Your task to perform on an android device: change the upload size in google photos Image 0: 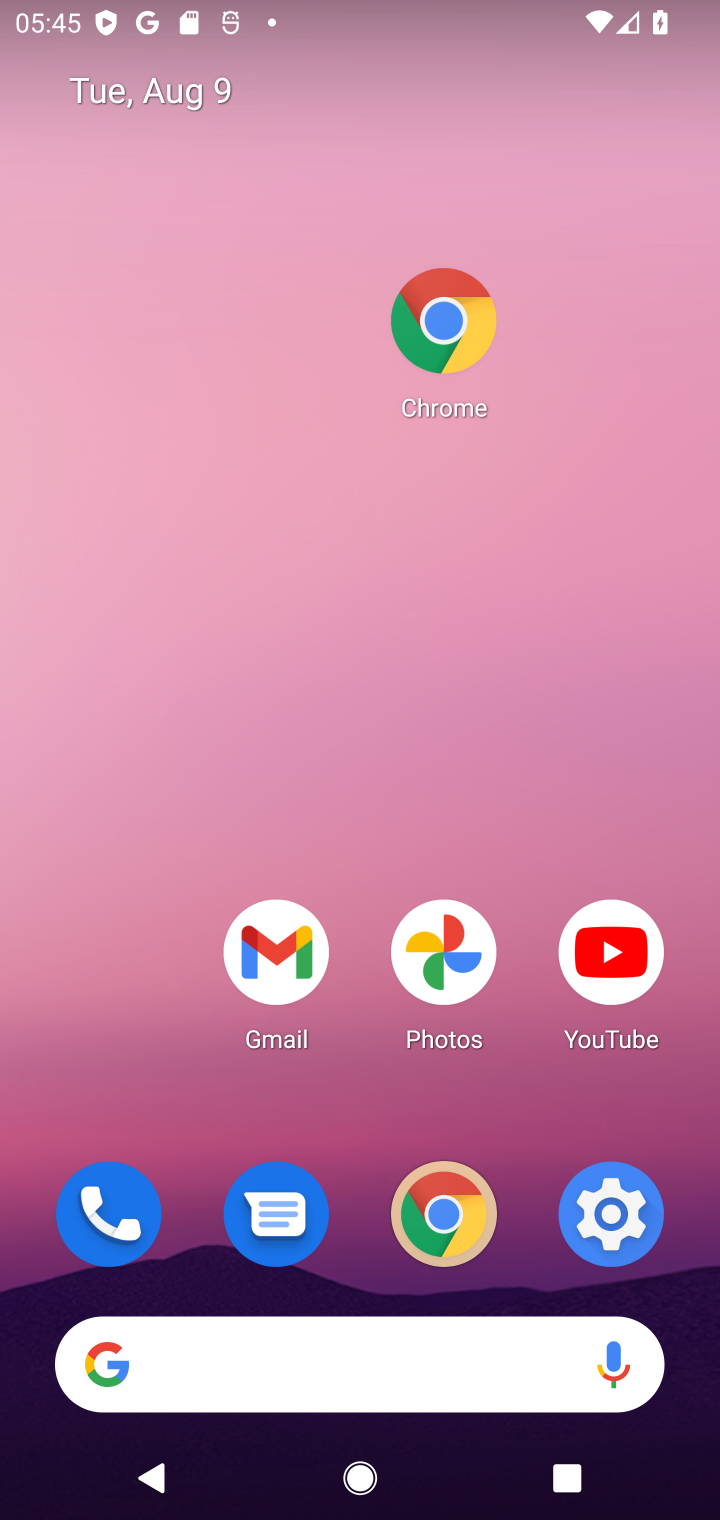
Step 0: drag from (458, 1435) to (517, 569)
Your task to perform on an android device: change the upload size in google photos Image 1: 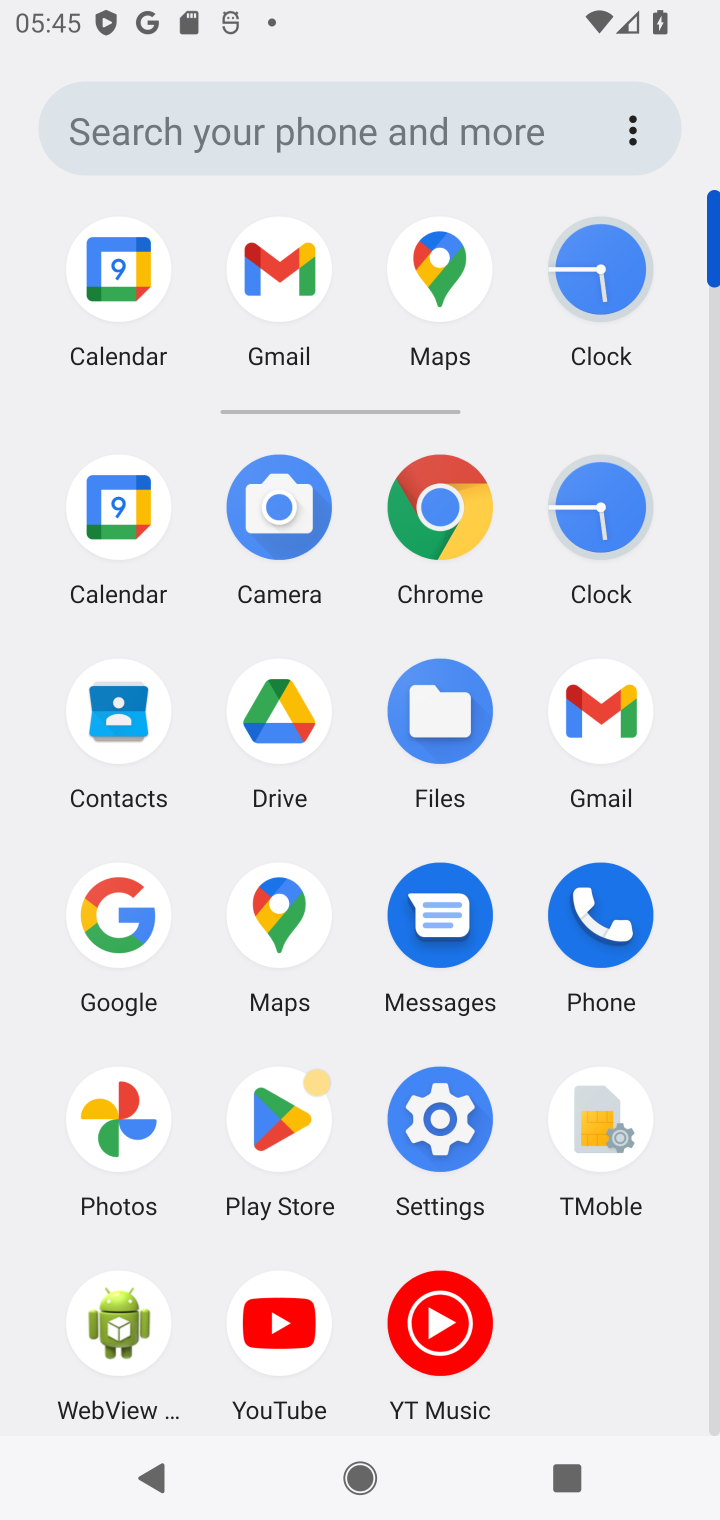
Step 1: click (103, 1166)
Your task to perform on an android device: change the upload size in google photos Image 2: 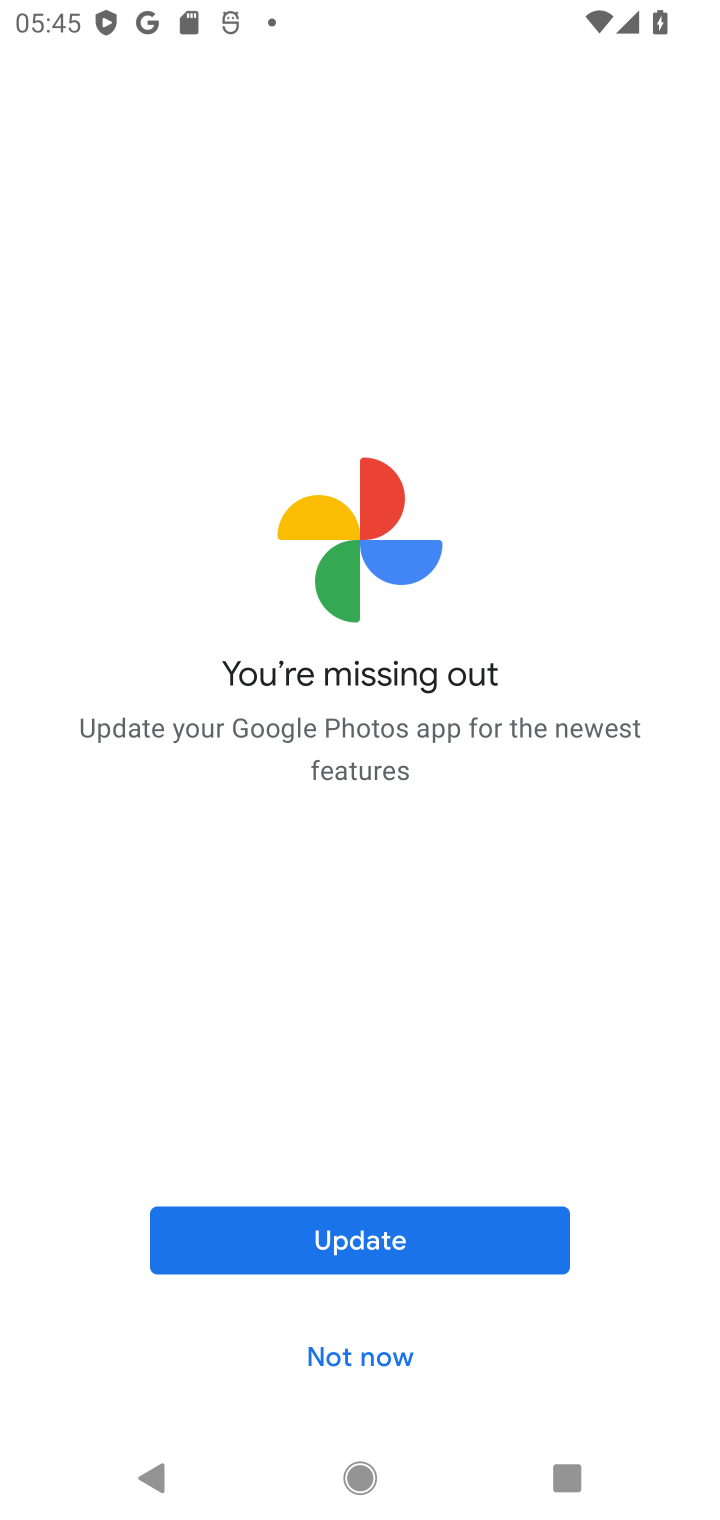
Step 2: click (330, 1247)
Your task to perform on an android device: change the upload size in google photos Image 3: 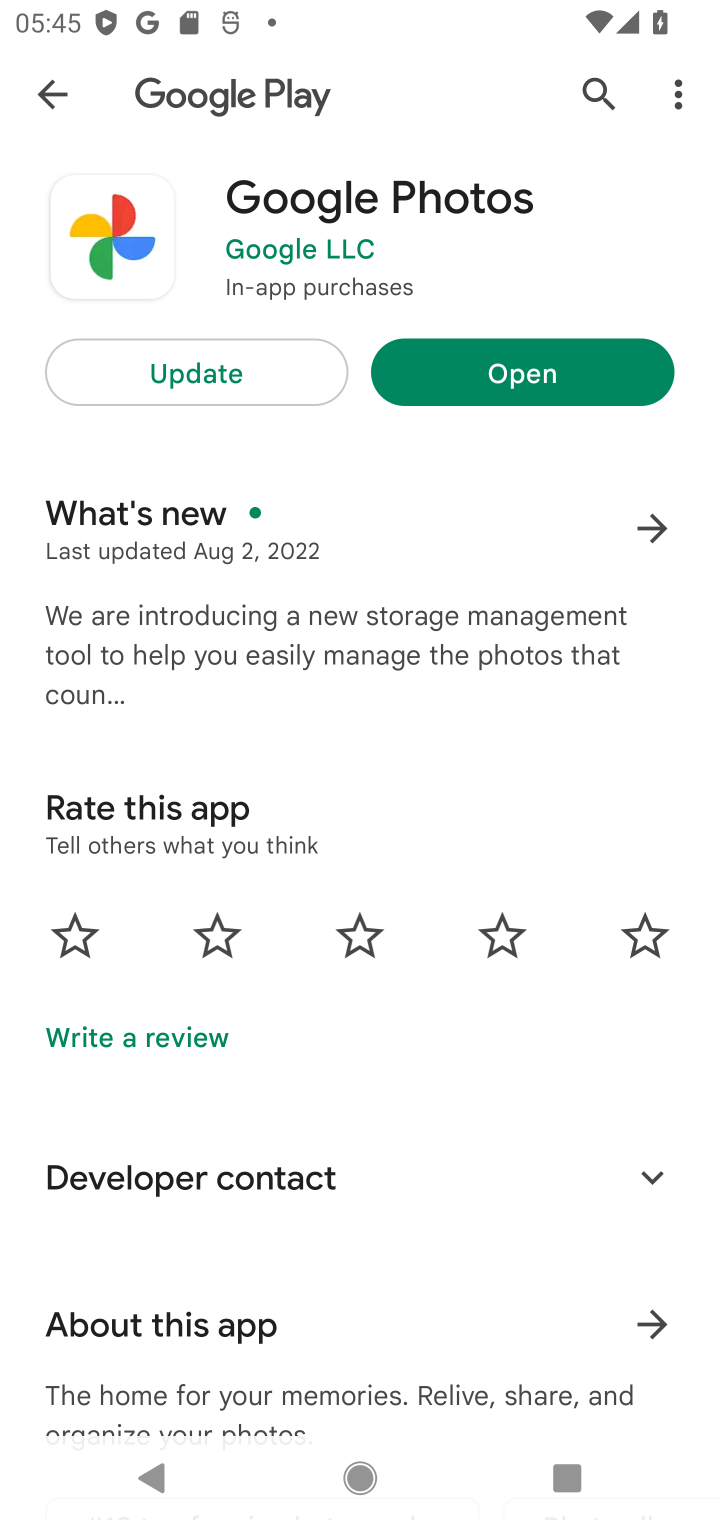
Step 3: click (207, 391)
Your task to perform on an android device: change the upload size in google photos Image 4: 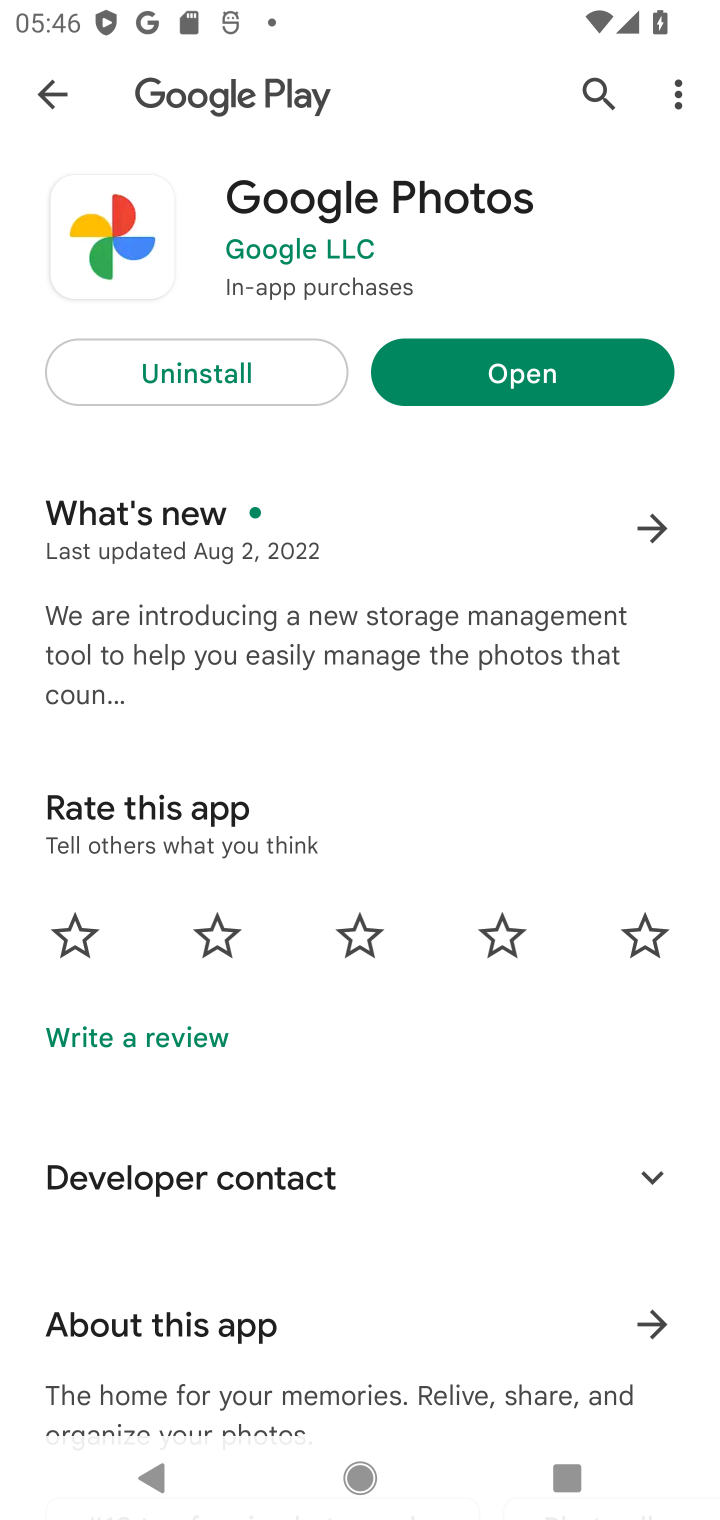
Step 4: click (552, 355)
Your task to perform on an android device: change the upload size in google photos Image 5: 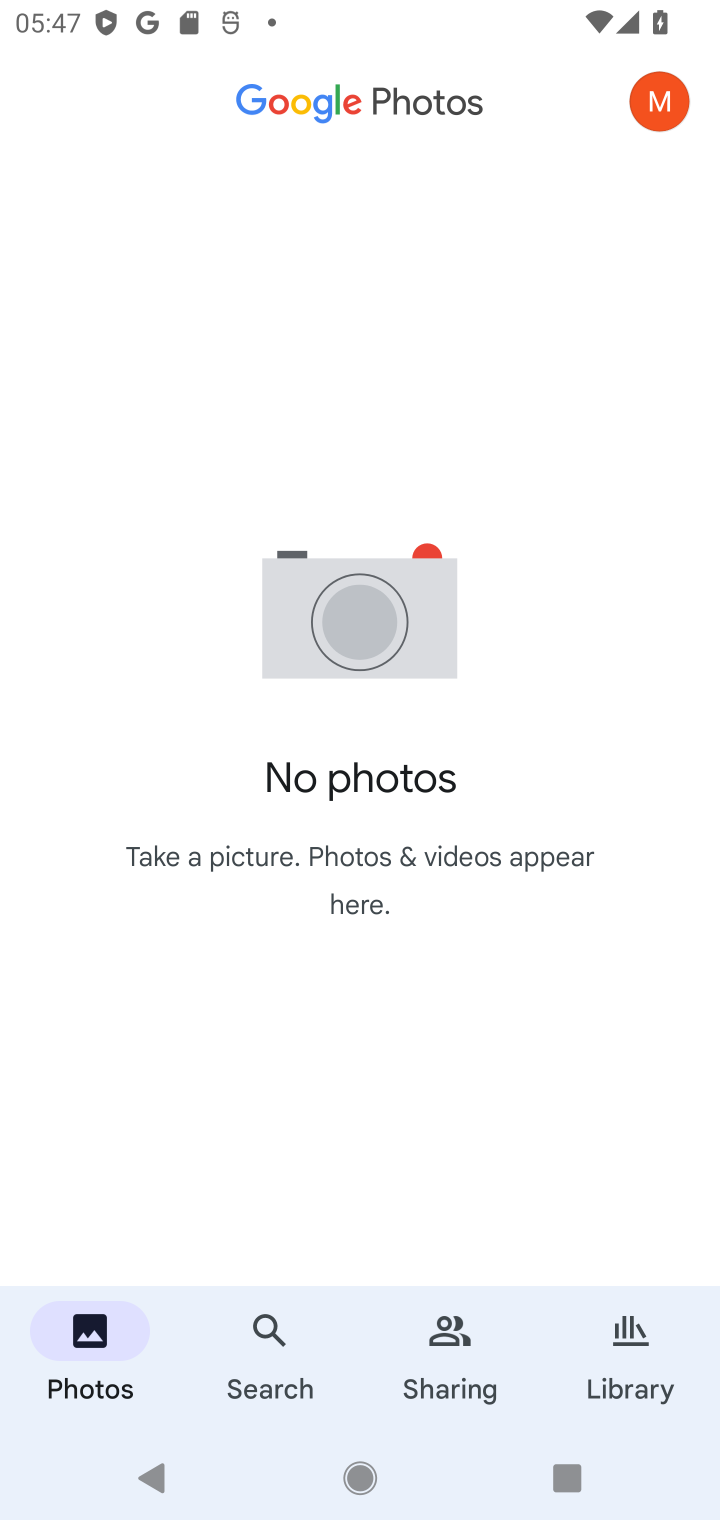
Step 5: click (655, 93)
Your task to perform on an android device: change the upload size in google photos Image 6: 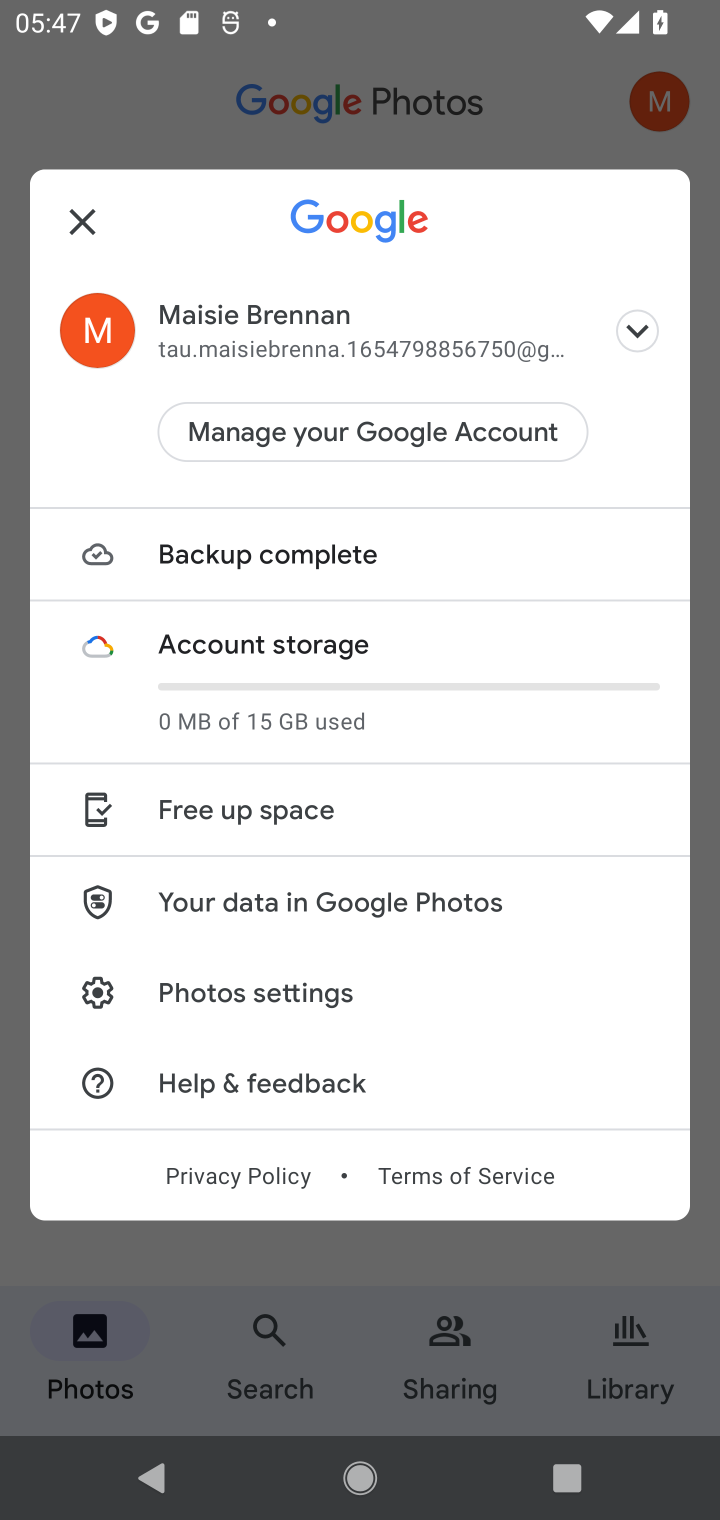
Step 6: click (245, 975)
Your task to perform on an android device: change the upload size in google photos Image 7: 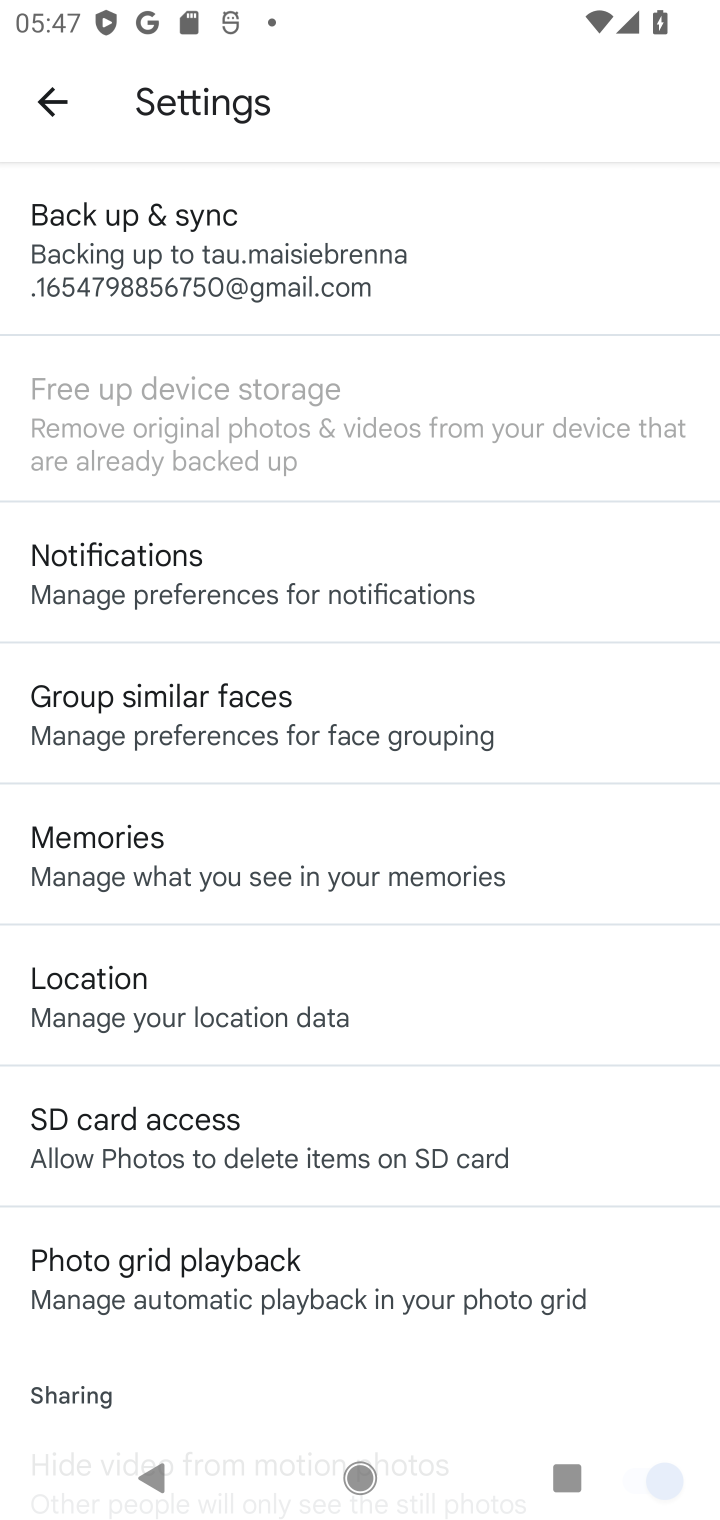
Step 7: click (206, 295)
Your task to perform on an android device: change the upload size in google photos Image 8: 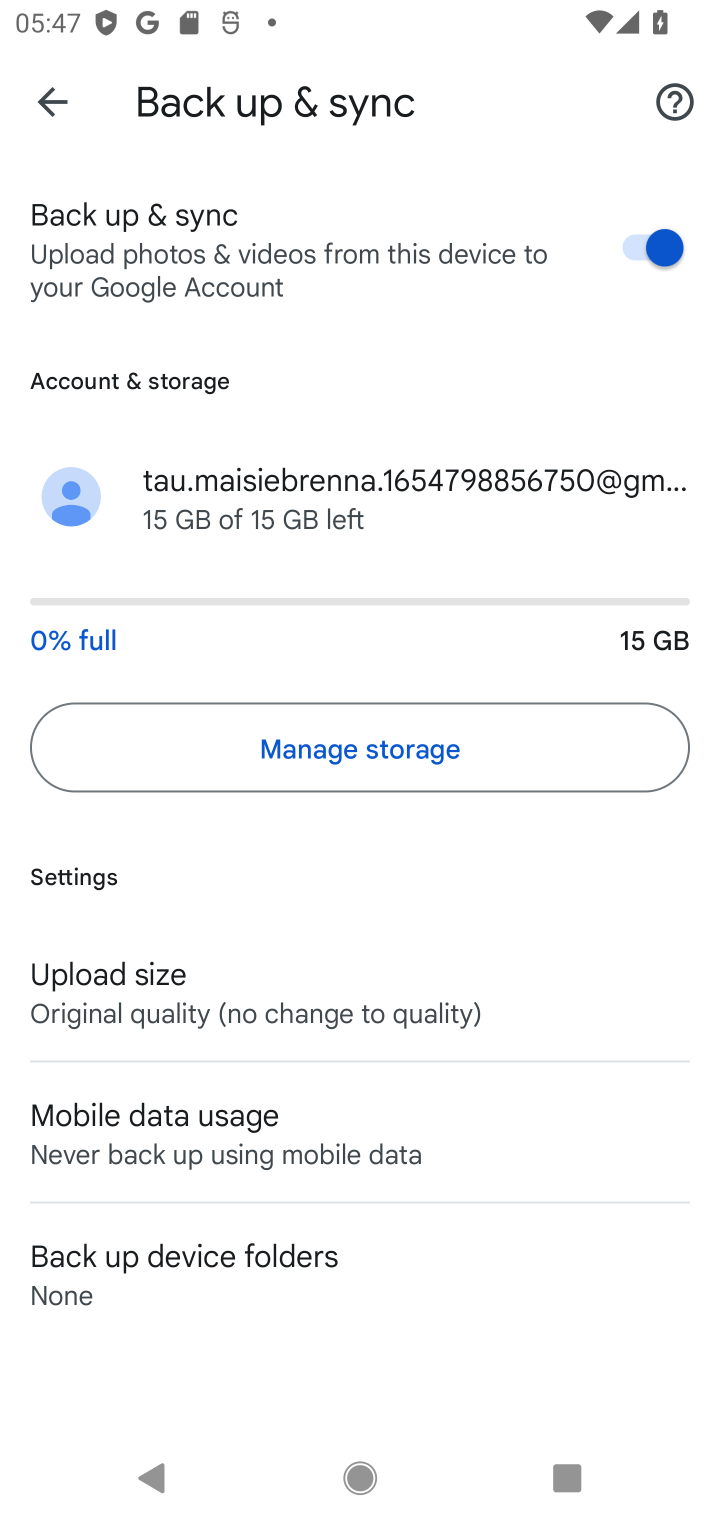
Step 8: click (264, 988)
Your task to perform on an android device: change the upload size in google photos Image 9: 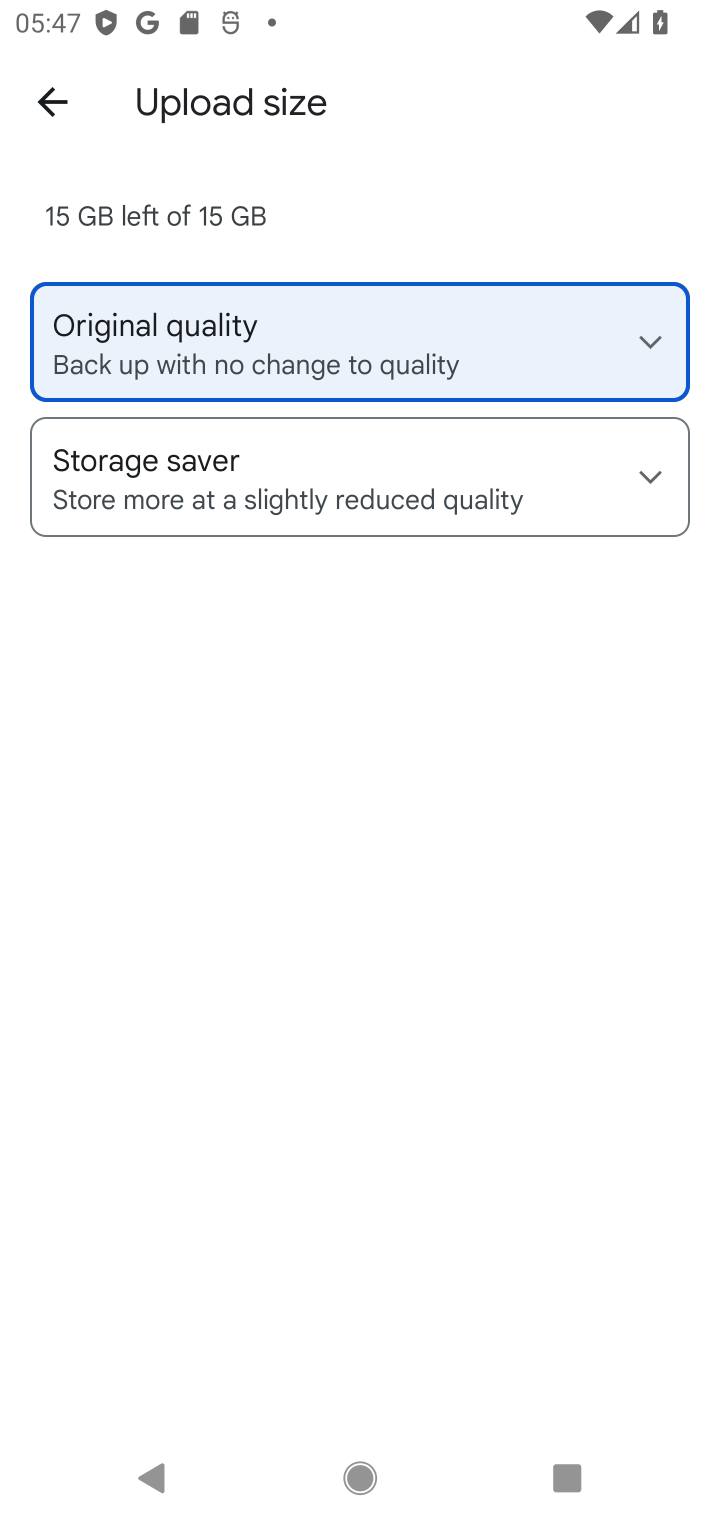
Step 9: task complete